Your task to perform on an android device: Open settings on Google Maps Image 0: 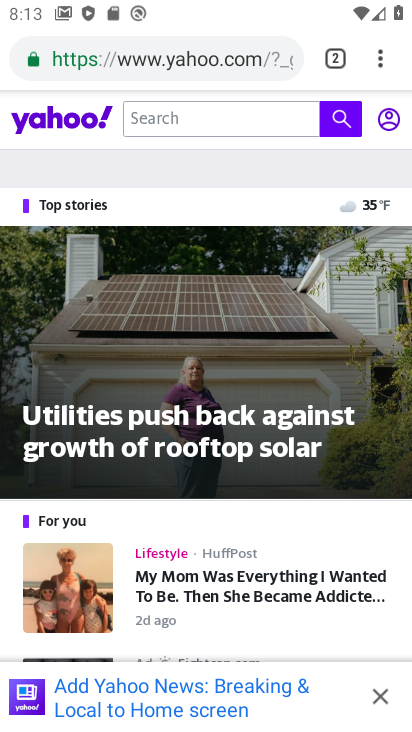
Step 0: press home button
Your task to perform on an android device: Open settings on Google Maps Image 1: 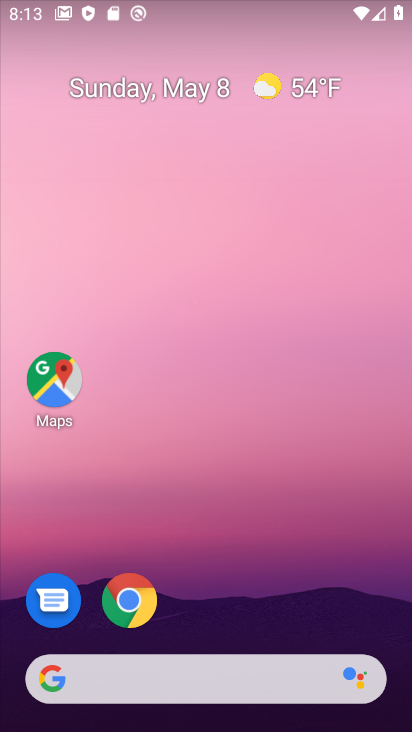
Step 1: click (60, 392)
Your task to perform on an android device: Open settings on Google Maps Image 2: 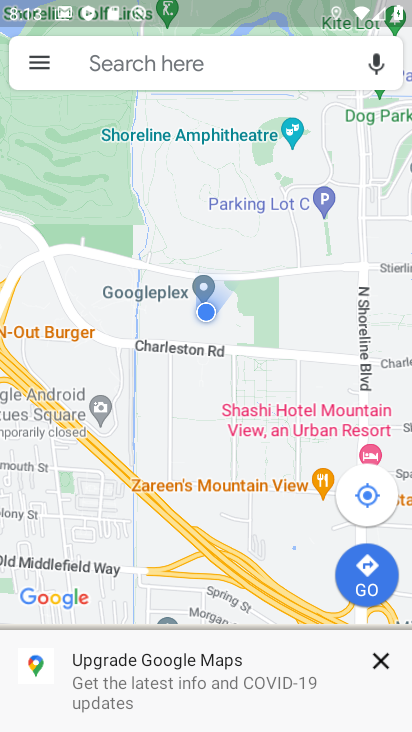
Step 2: click (38, 61)
Your task to perform on an android device: Open settings on Google Maps Image 3: 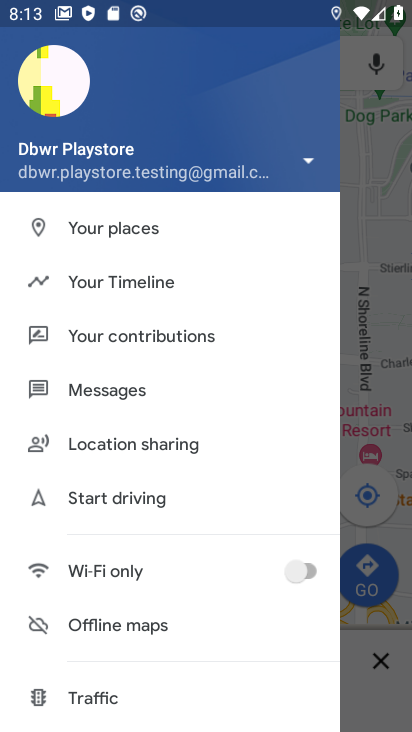
Step 3: drag from (167, 681) to (182, 306)
Your task to perform on an android device: Open settings on Google Maps Image 4: 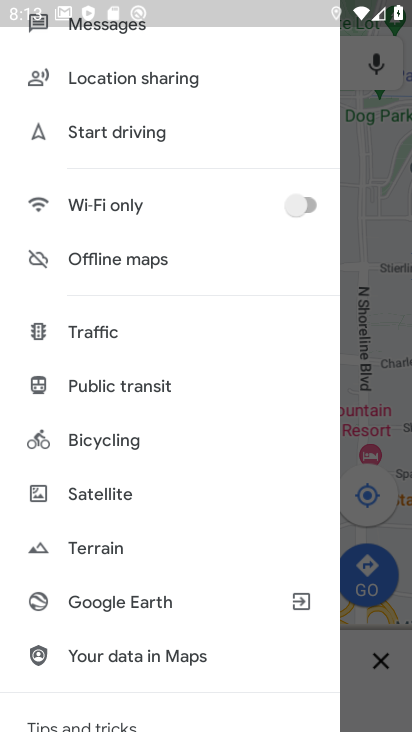
Step 4: drag from (104, 619) to (146, 226)
Your task to perform on an android device: Open settings on Google Maps Image 5: 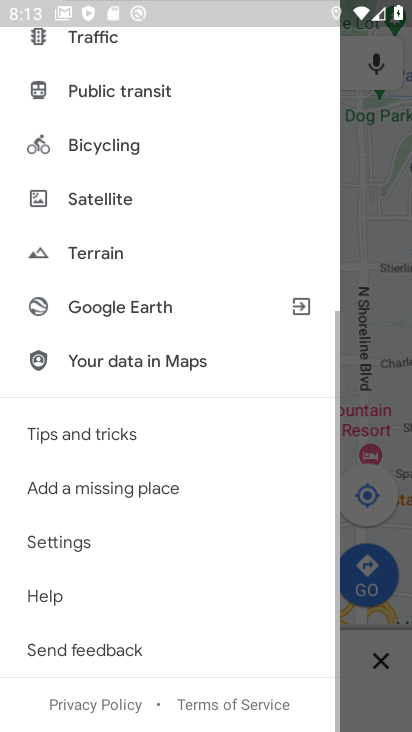
Step 5: click (91, 549)
Your task to perform on an android device: Open settings on Google Maps Image 6: 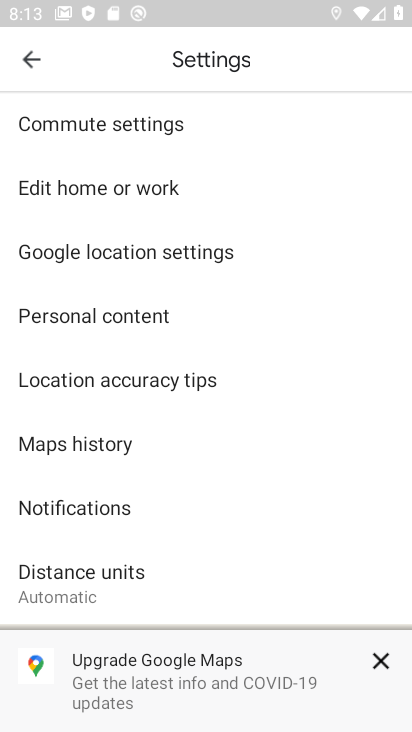
Step 6: task complete